Your task to perform on an android device: Is it going to rain today? Image 0: 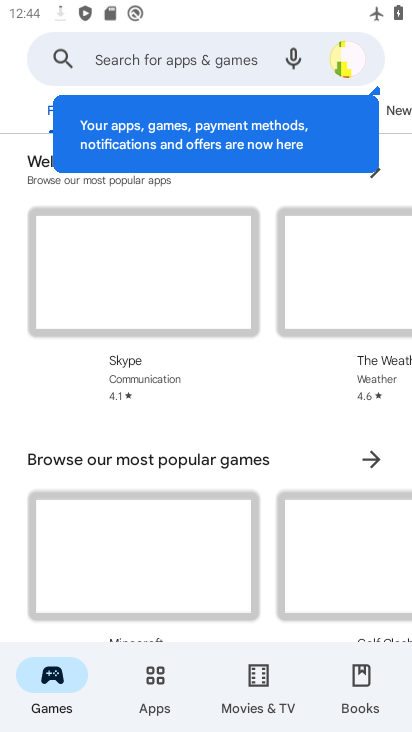
Step 0: press home button
Your task to perform on an android device: Is it going to rain today? Image 1: 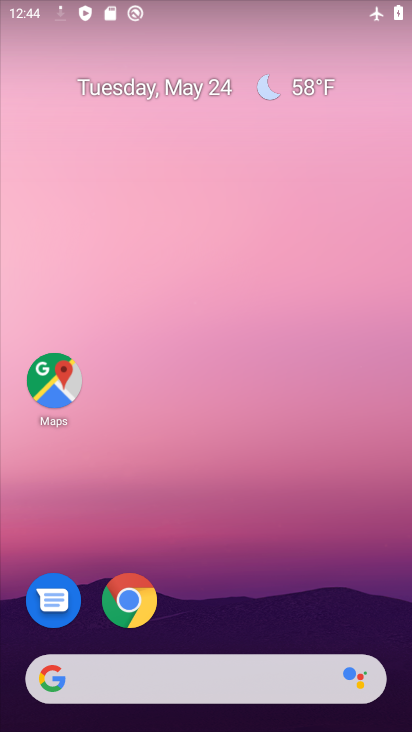
Step 1: click (318, 85)
Your task to perform on an android device: Is it going to rain today? Image 2: 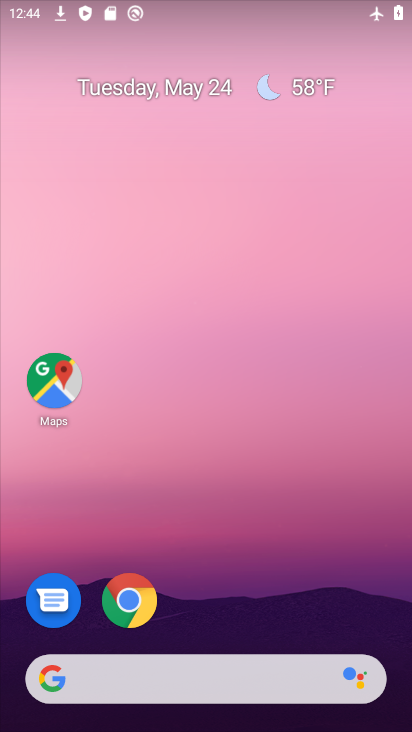
Step 2: click (301, 79)
Your task to perform on an android device: Is it going to rain today? Image 3: 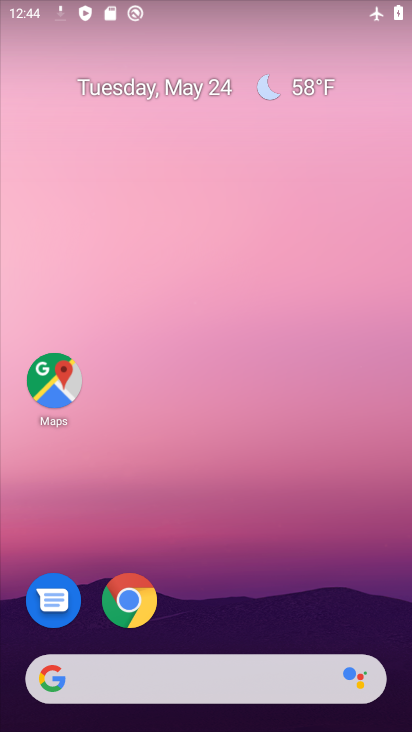
Step 3: click (303, 81)
Your task to perform on an android device: Is it going to rain today? Image 4: 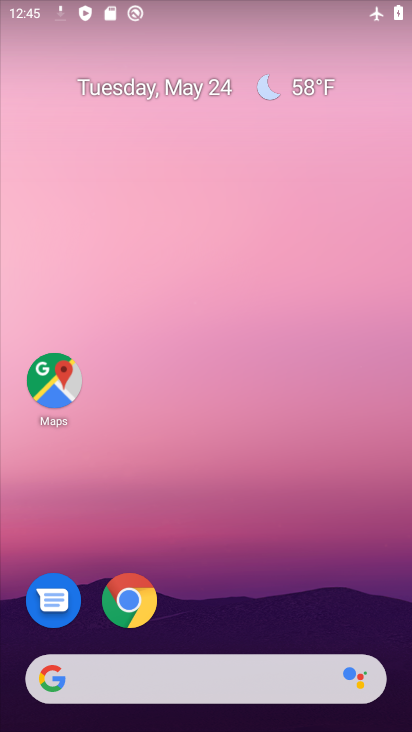
Step 4: click (307, 94)
Your task to perform on an android device: Is it going to rain today? Image 5: 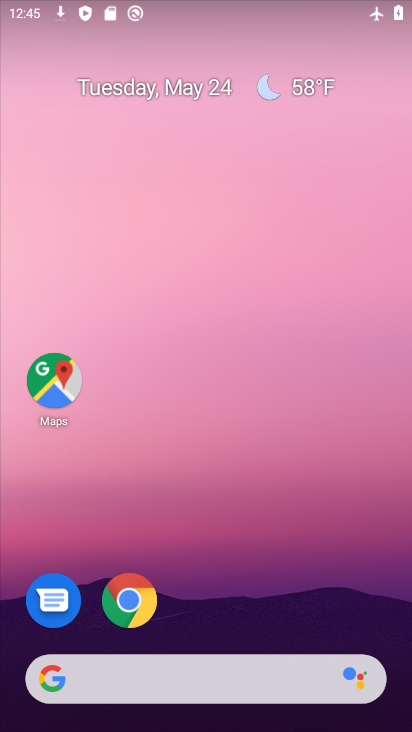
Step 5: drag from (291, 601) to (168, 10)
Your task to perform on an android device: Is it going to rain today? Image 6: 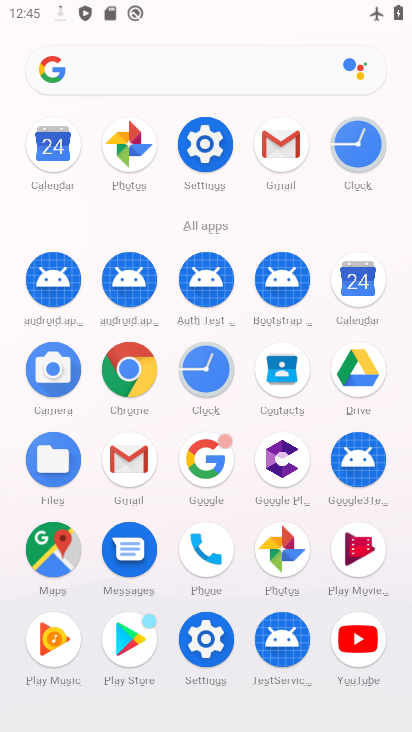
Step 6: click (206, 464)
Your task to perform on an android device: Is it going to rain today? Image 7: 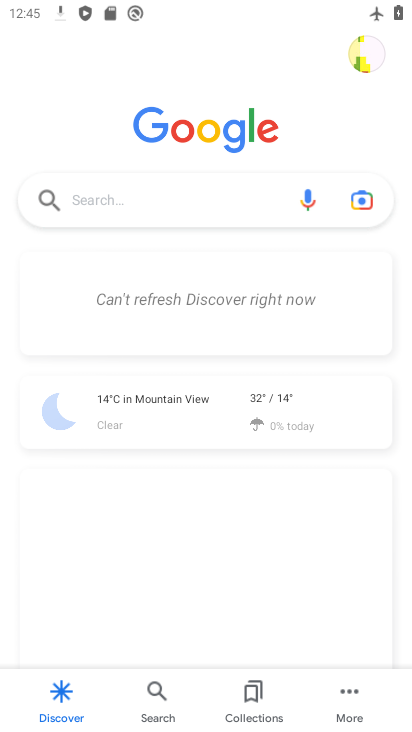
Step 7: click (351, 699)
Your task to perform on an android device: Is it going to rain today? Image 8: 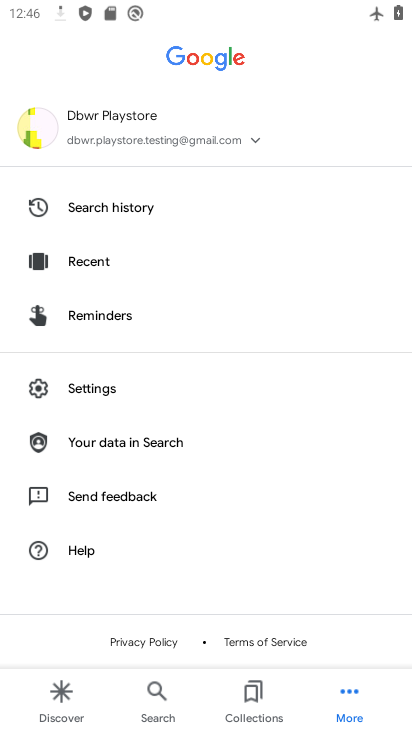
Step 8: press home button
Your task to perform on an android device: Is it going to rain today? Image 9: 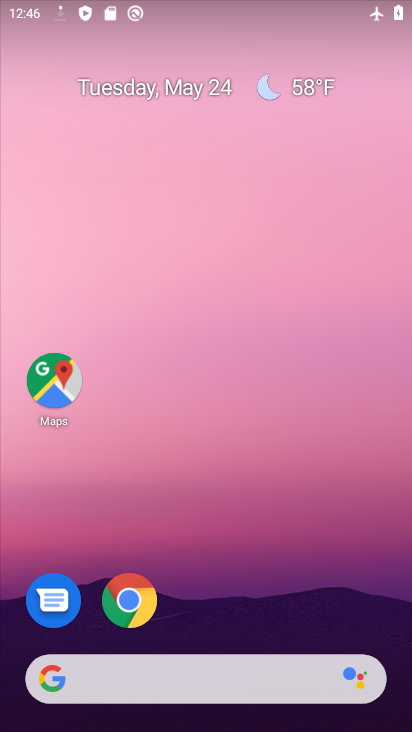
Step 9: drag from (278, 557) to (201, 10)
Your task to perform on an android device: Is it going to rain today? Image 10: 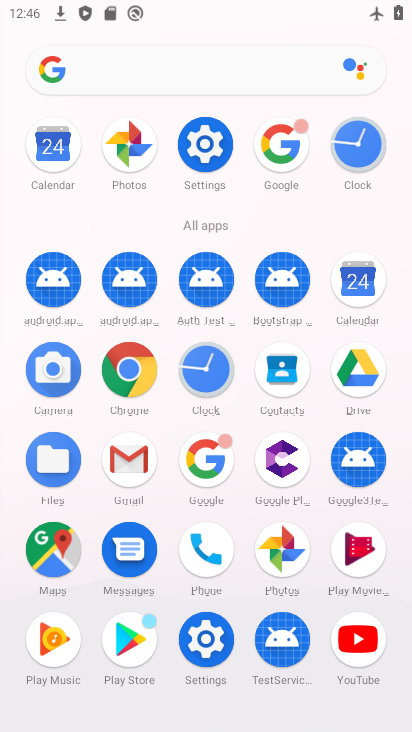
Step 10: click (207, 465)
Your task to perform on an android device: Is it going to rain today? Image 11: 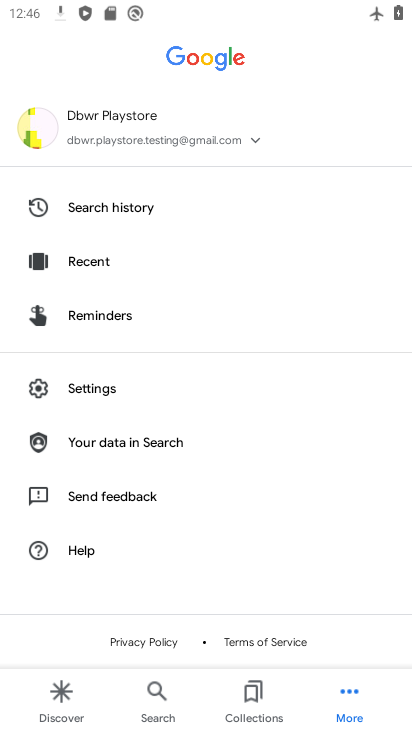
Step 11: click (64, 699)
Your task to perform on an android device: Is it going to rain today? Image 12: 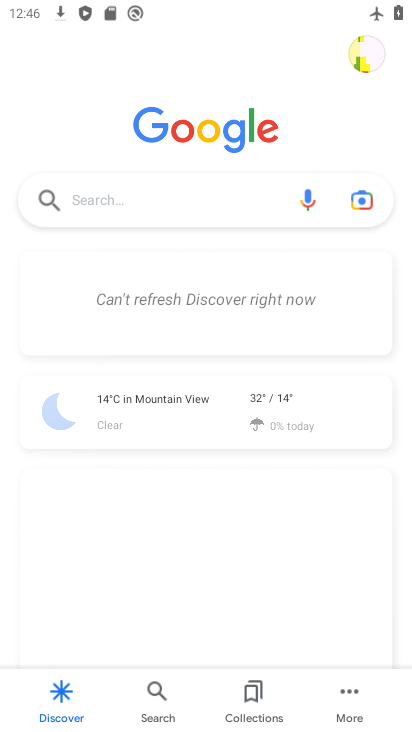
Step 12: click (283, 393)
Your task to perform on an android device: Is it going to rain today? Image 13: 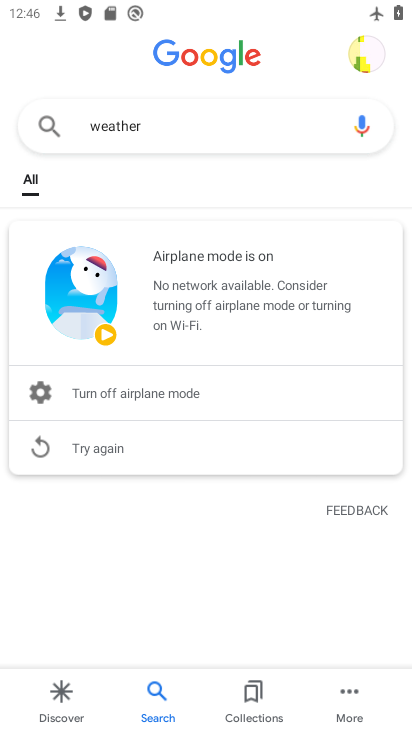
Step 13: task complete